Your task to perform on an android device: Open the calendar app, open the side menu, and click the "Day" option Image 0: 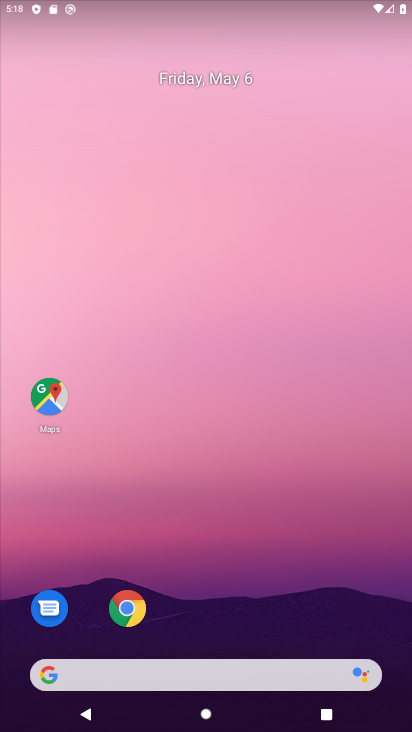
Step 0: drag from (303, 600) to (303, 259)
Your task to perform on an android device: Open the calendar app, open the side menu, and click the "Day" option Image 1: 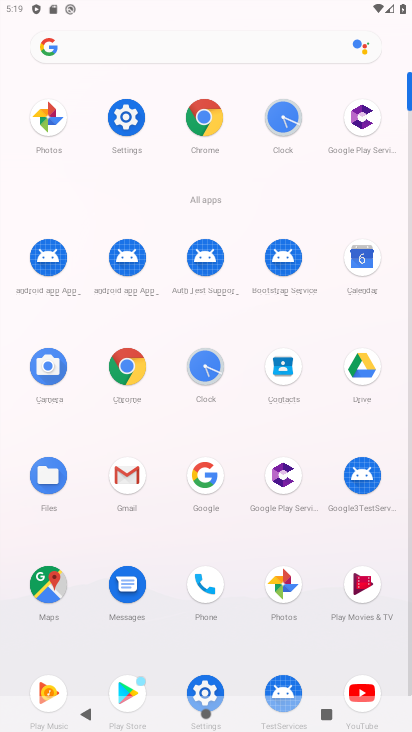
Step 1: click (205, 647)
Your task to perform on an android device: Open the calendar app, open the side menu, and click the "Day" option Image 2: 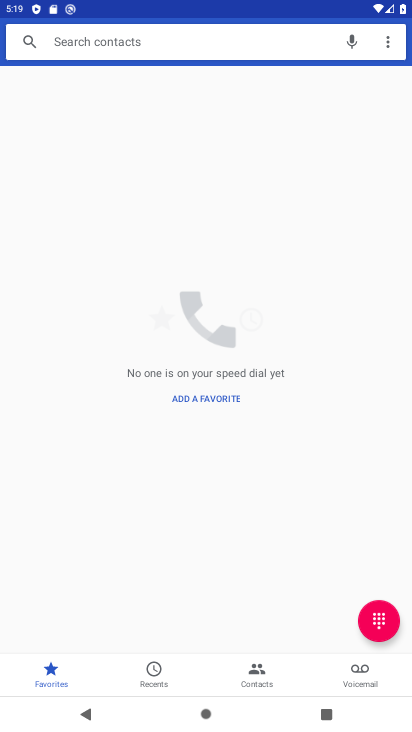
Step 2: click (212, 688)
Your task to perform on an android device: Open the calendar app, open the side menu, and click the "Day" option Image 3: 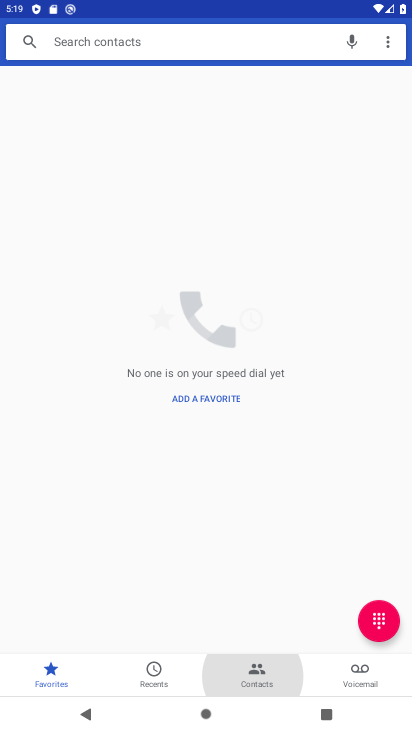
Step 3: click (212, 700)
Your task to perform on an android device: Open the calendar app, open the side menu, and click the "Day" option Image 4: 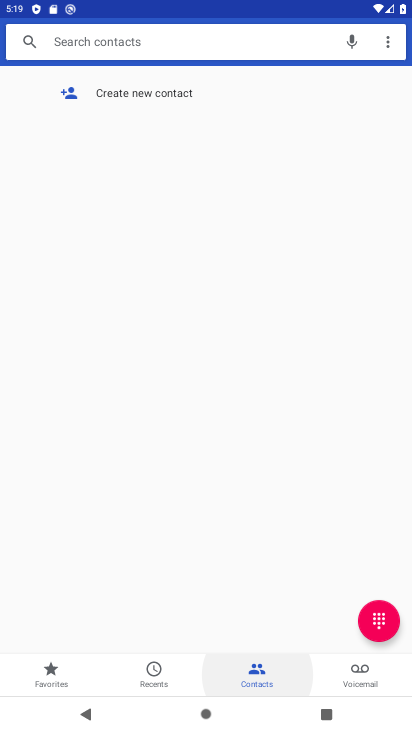
Step 4: click (210, 709)
Your task to perform on an android device: Open the calendar app, open the side menu, and click the "Day" option Image 5: 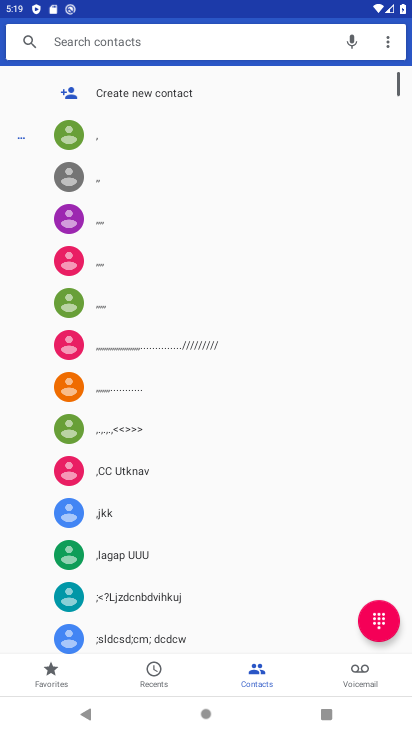
Step 5: press home button
Your task to perform on an android device: Open the calendar app, open the side menu, and click the "Day" option Image 6: 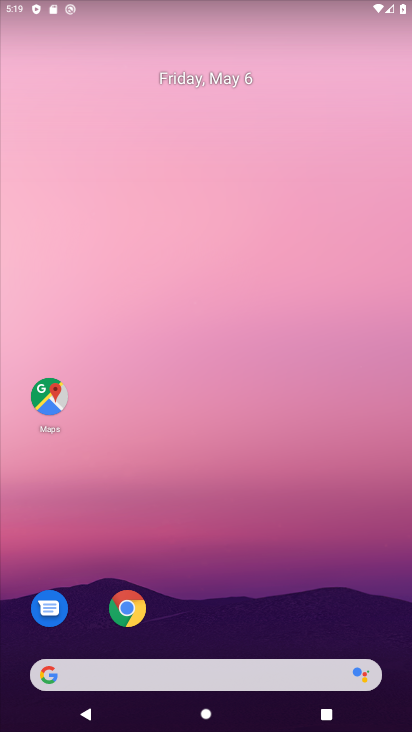
Step 6: press home button
Your task to perform on an android device: Open the calendar app, open the side menu, and click the "Day" option Image 7: 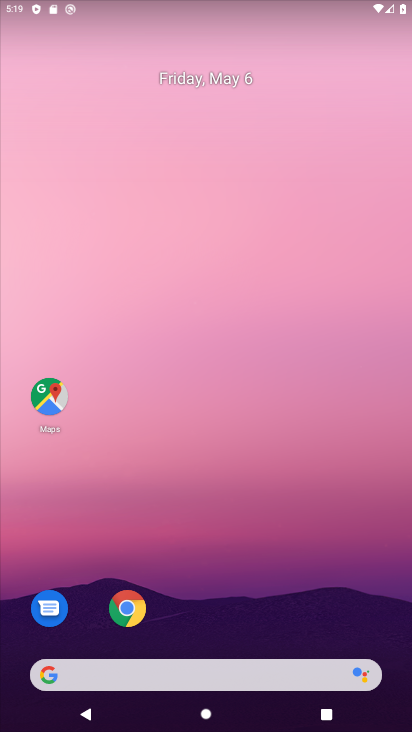
Step 7: drag from (302, 580) to (290, 12)
Your task to perform on an android device: Open the calendar app, open the side menu, and click the "Day" option Image 8: 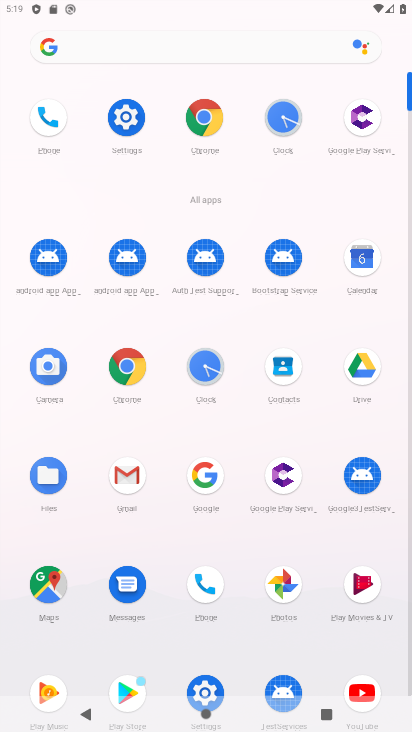
Step 8: drag from (307, 464) to (303, 139)
Your task to perform on an android device: Open the calendar app, open the side menu, and click the "Day" option Image 9: 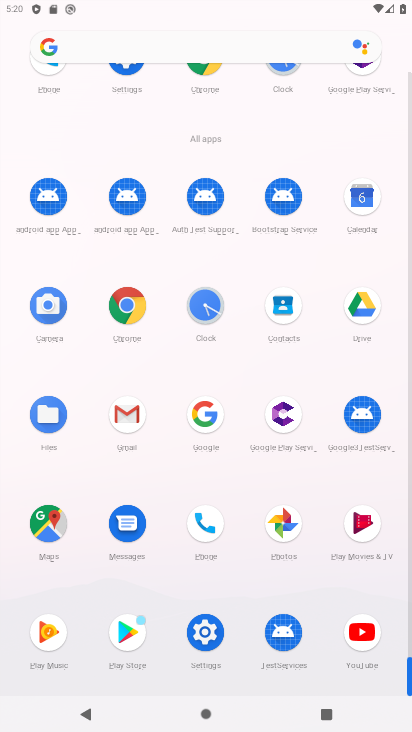
Step 9: drag from (303, 132) to (257, 378)
Your task to perform on an android device: Open the calendar app, open the side menu, and click the "Day" option Image 10: 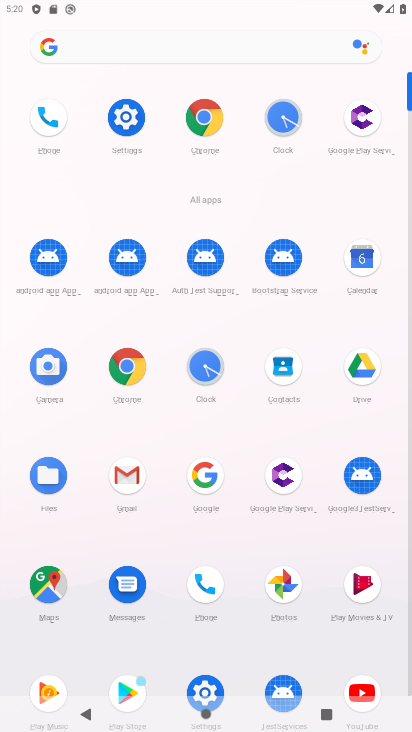
Step 10: drag from (321, 133) to (300, 726)
Your task to perform on an android device: Open the calendar app, open the side menu, and click the "Day" option Image 11: 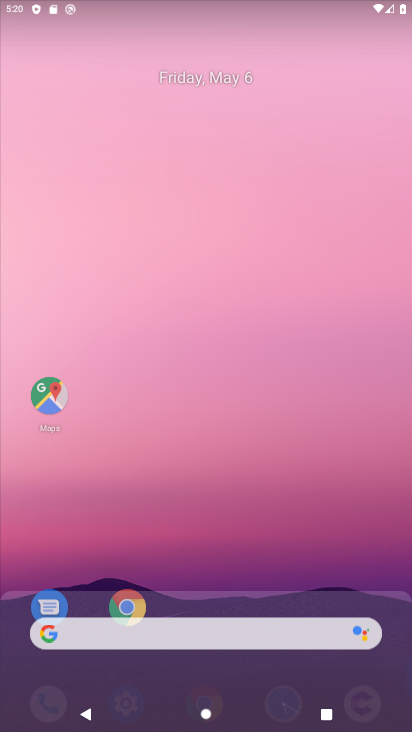
Step 11: drag from (406, 658) to (411, 511)
Your task to perform on an android device: Open the calendar app, open the side menu, and click the "Day" option Image 12: 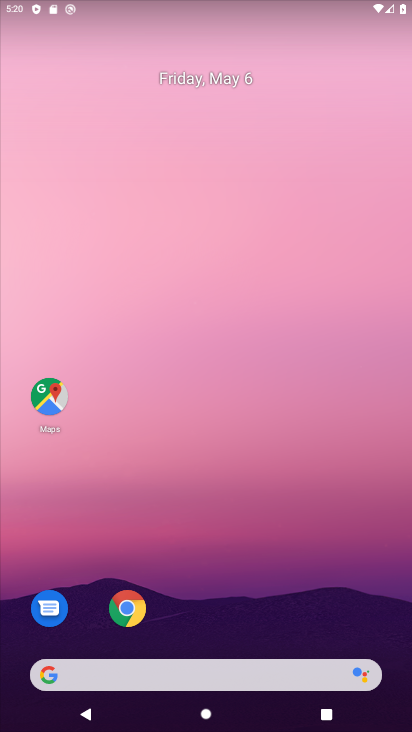
Step 12: drag from (295, 567) to (267, 19)
Your task to perform on an android device: Open the calendar app, open the side menu, and click the "Day" option Image 13: 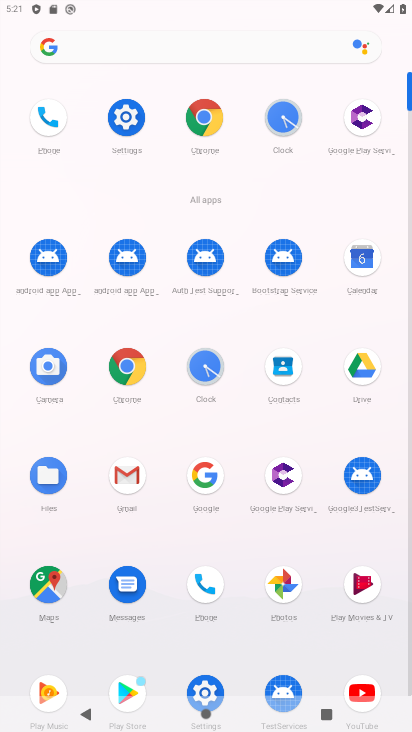
Step 13: click (357, 261)
Your task to perform on an android device: Open the calendar app, open the side menu, and click the "Day" option Image 14: 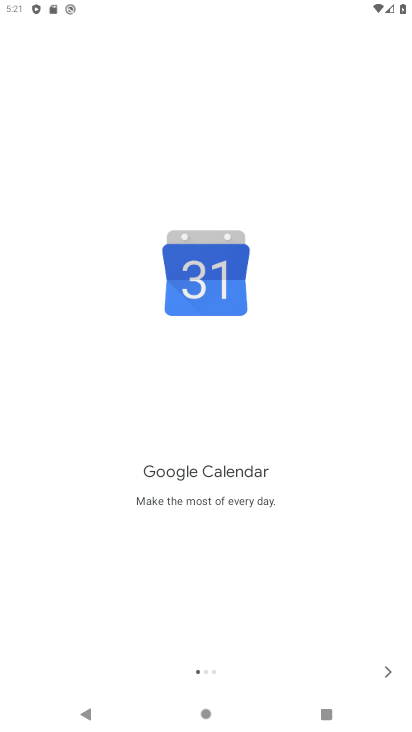
Step 14: click (383, 678)
Your task to perform on an android device: Open the calendar app, open the side menu, and click the "Day" option Image 15: 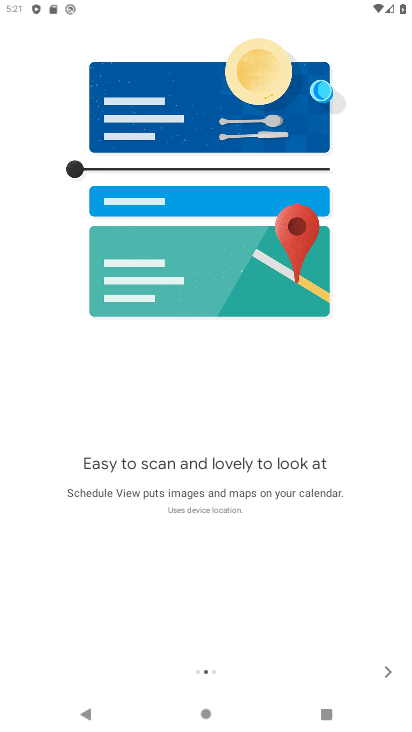
Step 15: click (383, 678)
Your task to perform on an android device: Open the calendar app, open the side menu, and click the "Day" option Image 16: 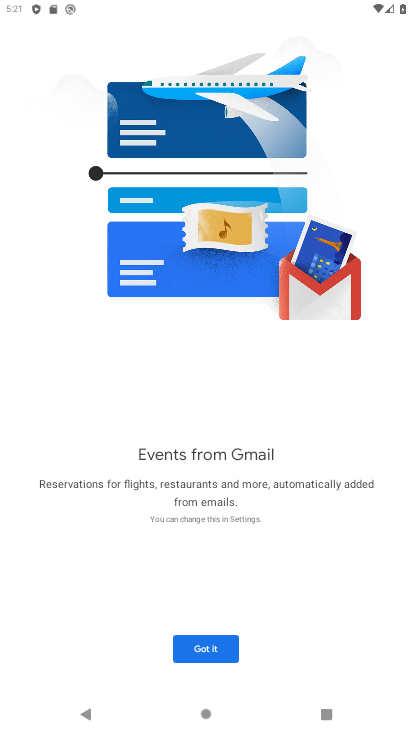
Step 16: click (216, 643)
Your task to perform on an android device: Open the calendar app, open the side menu, and click the "Day" option Image 17: 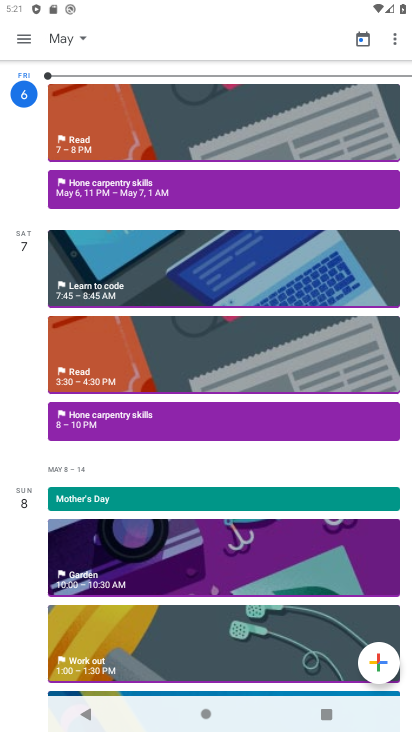
Step 17: click (26, 45)
Your task to perform on an android device: Open the calendar app, open the side menu, and click the "Day" option Image 18: 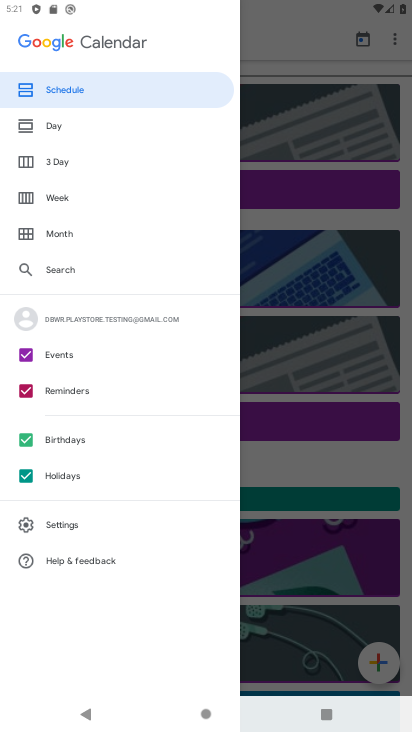
Step 18: click (46, 125)
Your task to perform on an android device: Open the calendar app, open the side menu, and click the "Day" option Image 19: 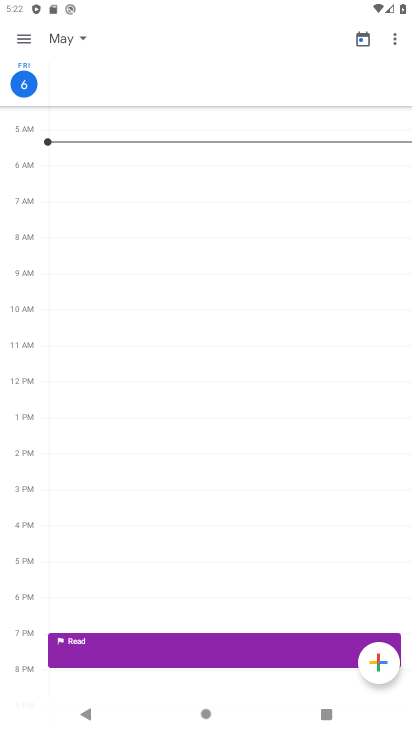
Step 19: click (15, 47)
Your task to perform on an android device: Open the calendar app, open the side menu, and click the "Day" option Image 20: 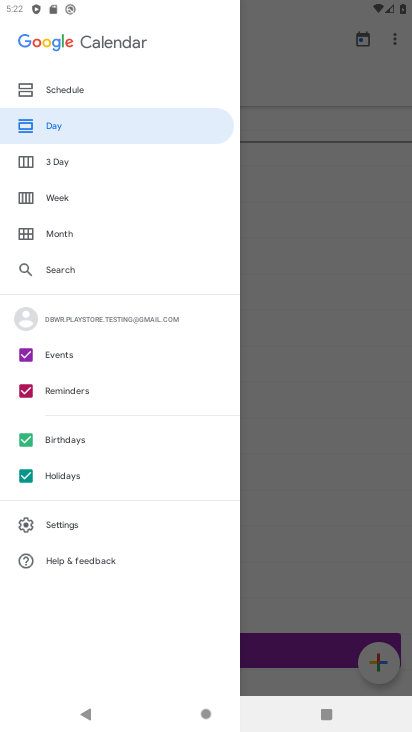
Step 20: task complete